Your task to perform on an android device: choose inbox layout in the gmail app Image 0: 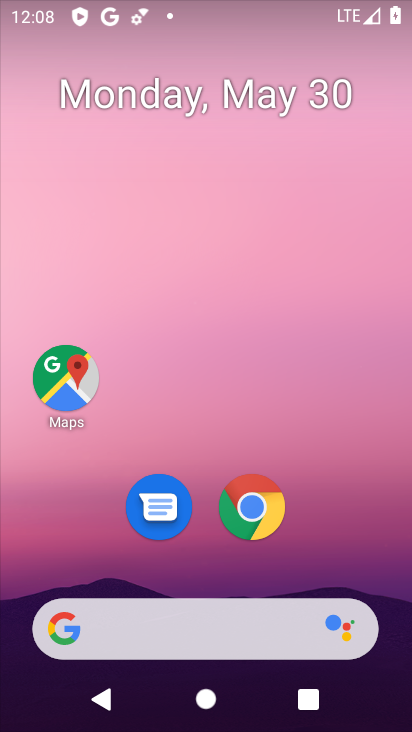
Step 0: drag from (341, 549) to (271, 70)
Your task to perform on an android device: choose inbox layout in the gmail app Image 1: 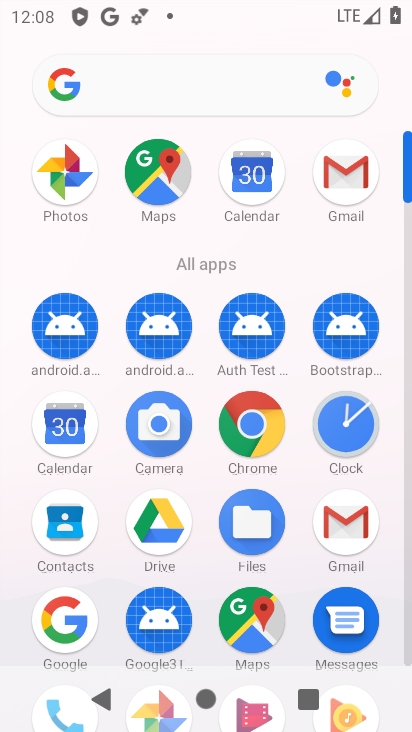
Step 1: click (347, 531)
Your task to perform on an android device: choose inbox layout in the gmail app Image 2: 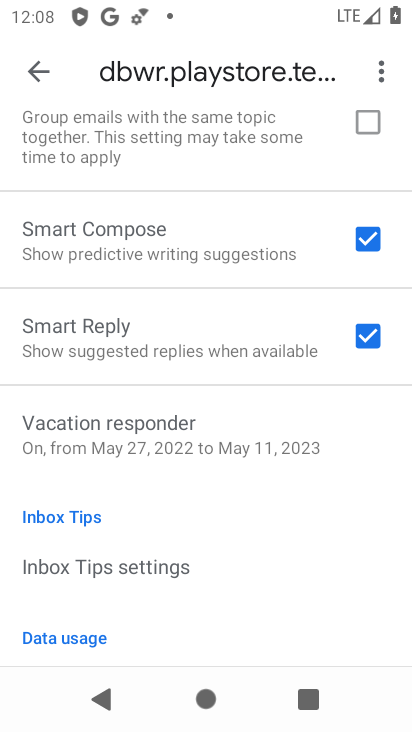
Step 2: drag from (59, 108) to (163, 597)
Your task to perform on an android device: choose inbox layout in the gmail app Image 3: 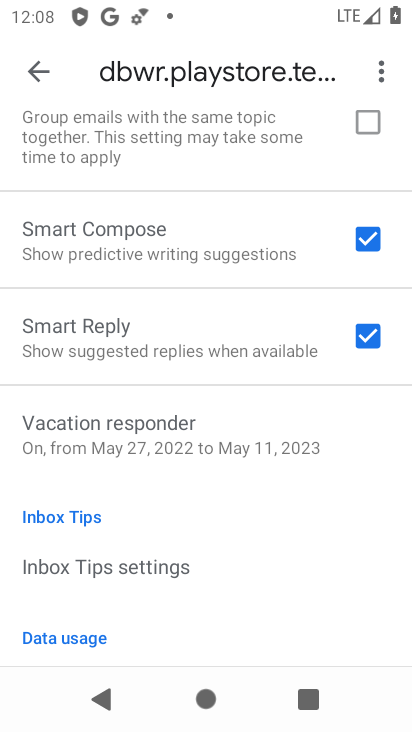
Step 3: drag from (266, 150) to (304, 592)
Your task to perform on an android device: choose inbox layout in the gmail app Image 4: 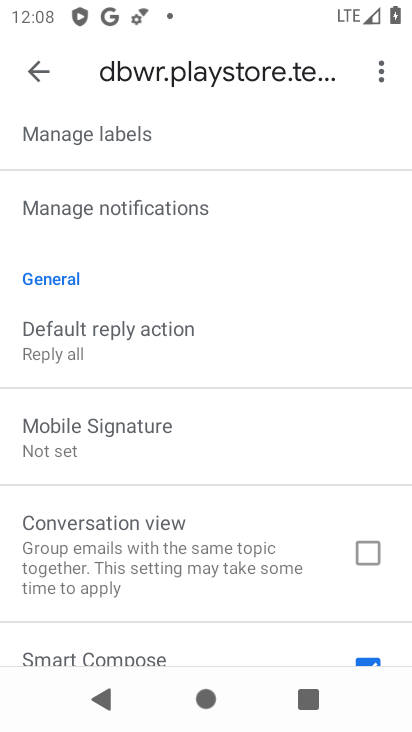
Step 4: drag from (271, 188) to (288, 591)
Your task to perform on an android device: choose inbox layout in the gmail app Image 5: 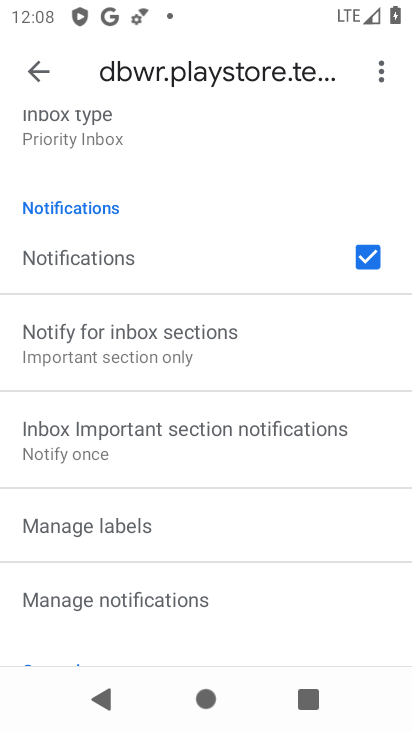
Step 5: drag from (216, 158) to (250, 510)
Your task to perform on an android device: choose inbox layout in the gmail app Image 6: 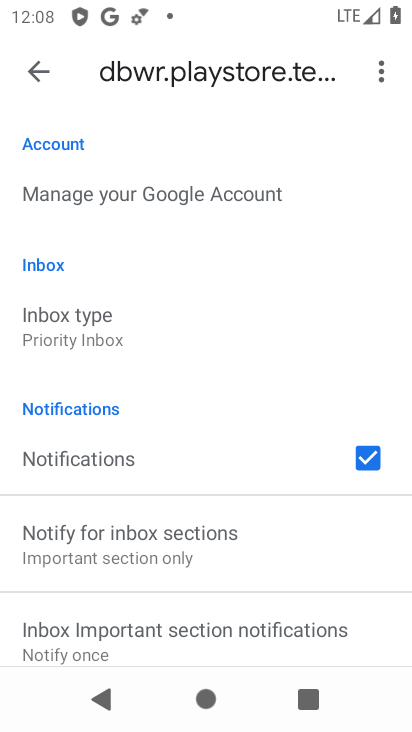
Step 6: click (52, 314)
Your task to perform on an android device: choose inbox layout in the gmail app Image 7: 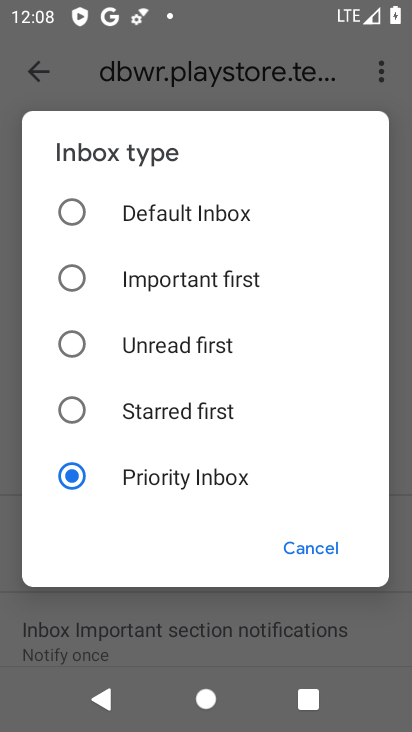
Step 7: click (154, 288)
Your task to perform on an android device: choose inbox layout in the gmail app Image 8: 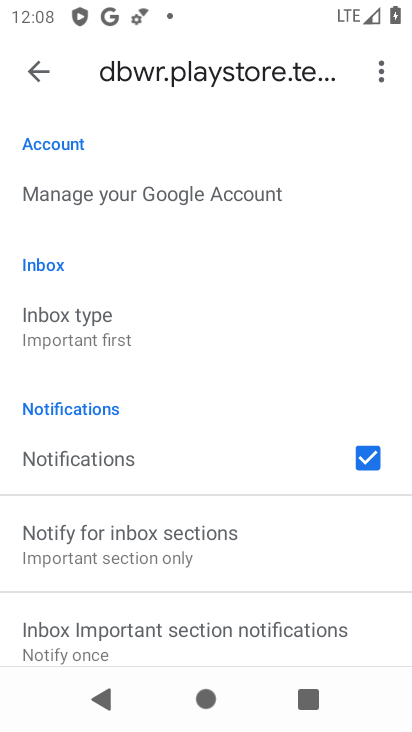
Step 8: task complete